Your task to perform on an android device: Open ESPN.com Image 0: 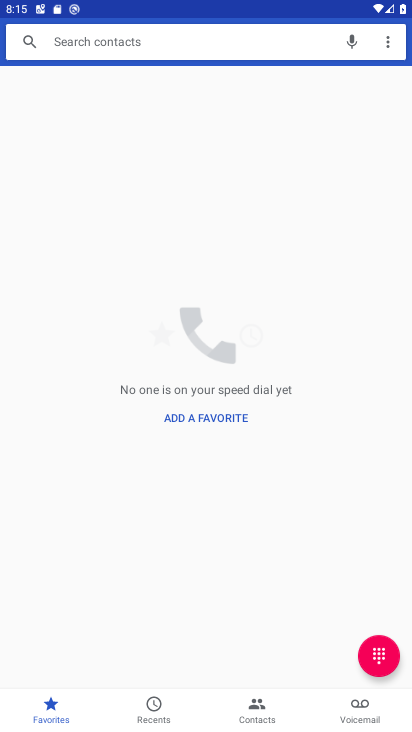
Step 0: press home button
Your task to perform on an android device: Open ESPN.com Image 1: 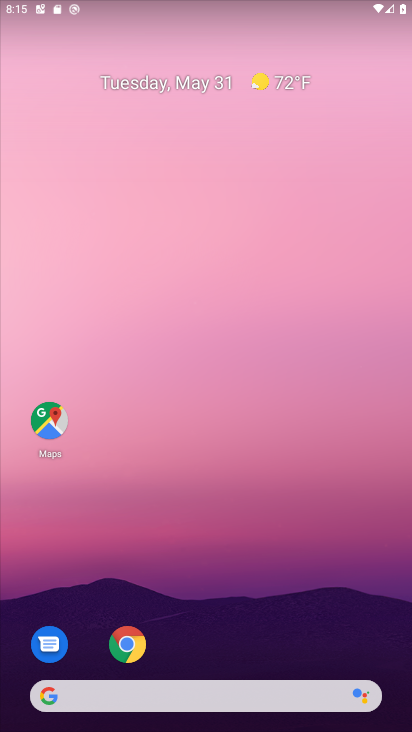
Step 1: click (126, 636)
Your task to perform on an android device: Open ESPN.com Image 2: 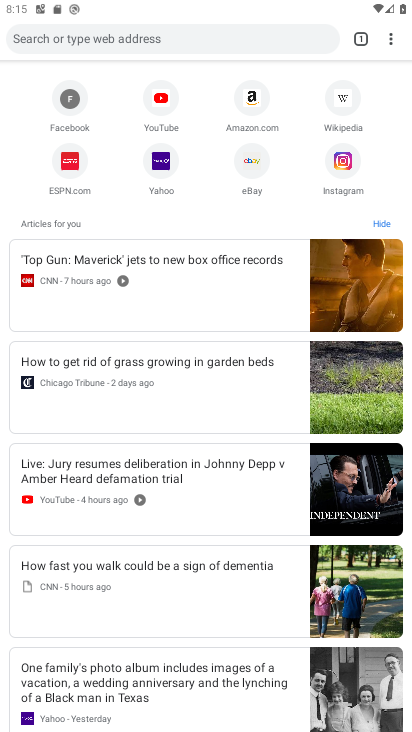
Step 2: click (66, 156)
Your task to perform on an android device: Open ESPN.com Image 3: 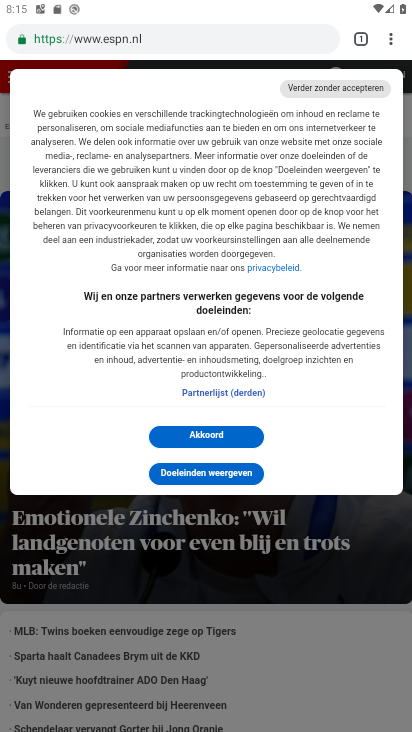
Step 3: click (207, 427)
Your task to perform on an android device: Open ESPN.com Image 4: 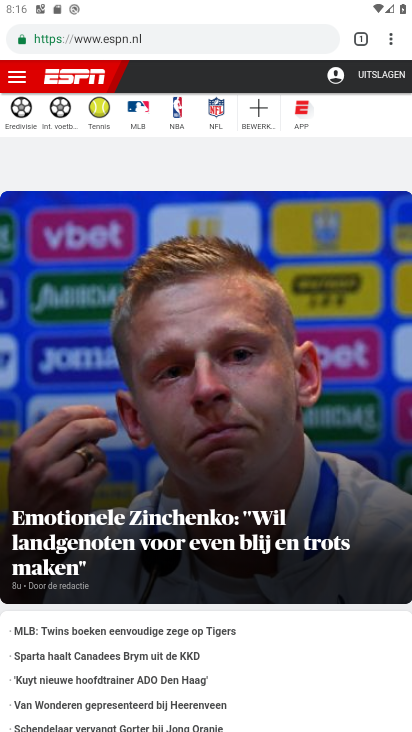
Step 4: task complete